Your task to perform on an android device: Go to Reddit.com Image 0: 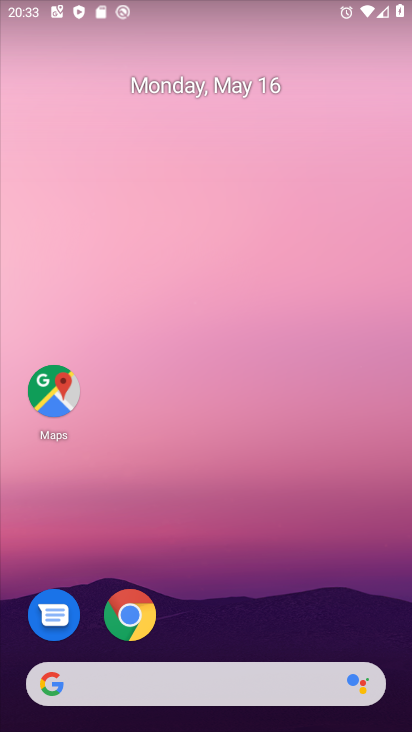
Step 0: click (133, 617)
Your task to perform on an android device: Go to Reddit.com Image 1: 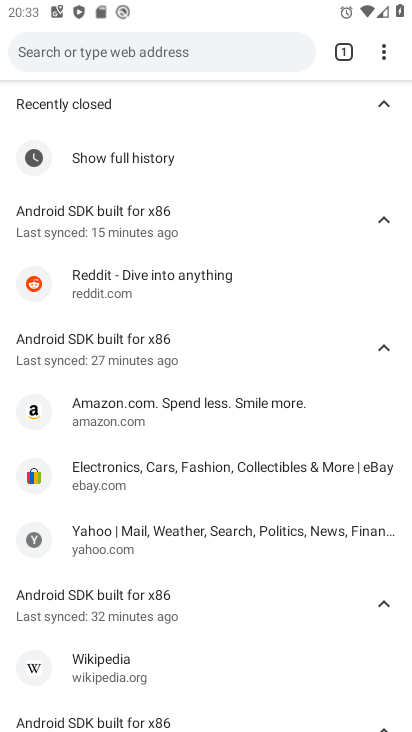
Step 1: click (127, 284)
Your task to perform on an android device: Go to Reddit.com Image 2: 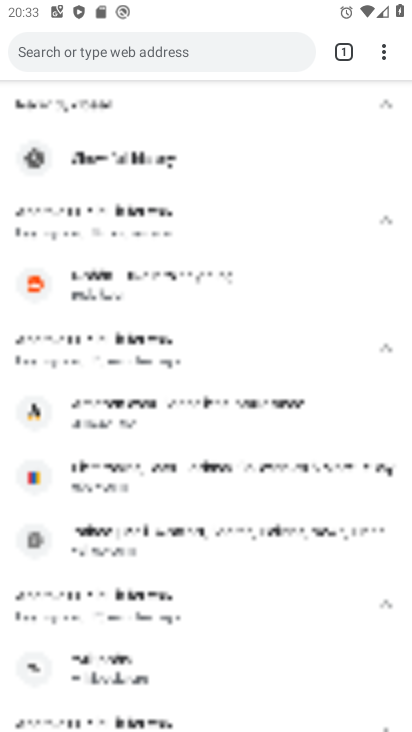
Step 2: click (127, 284)
Your task to perform on an android device: Go to Reddit.com Image 3: 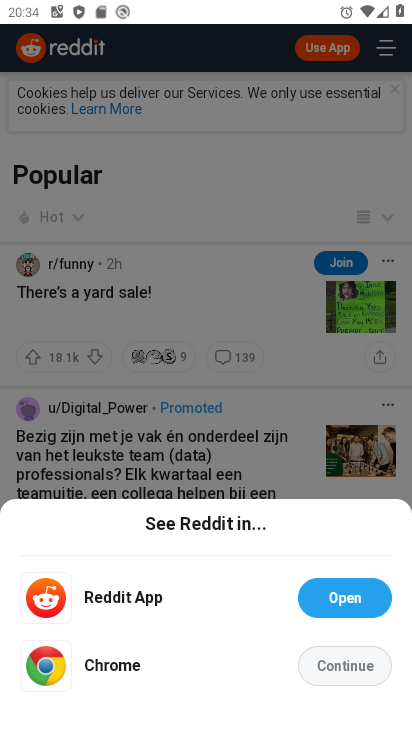
Step 3: task complete